Your task to perform on an android device: Add "macbook" to the cart on walmart Image 0: 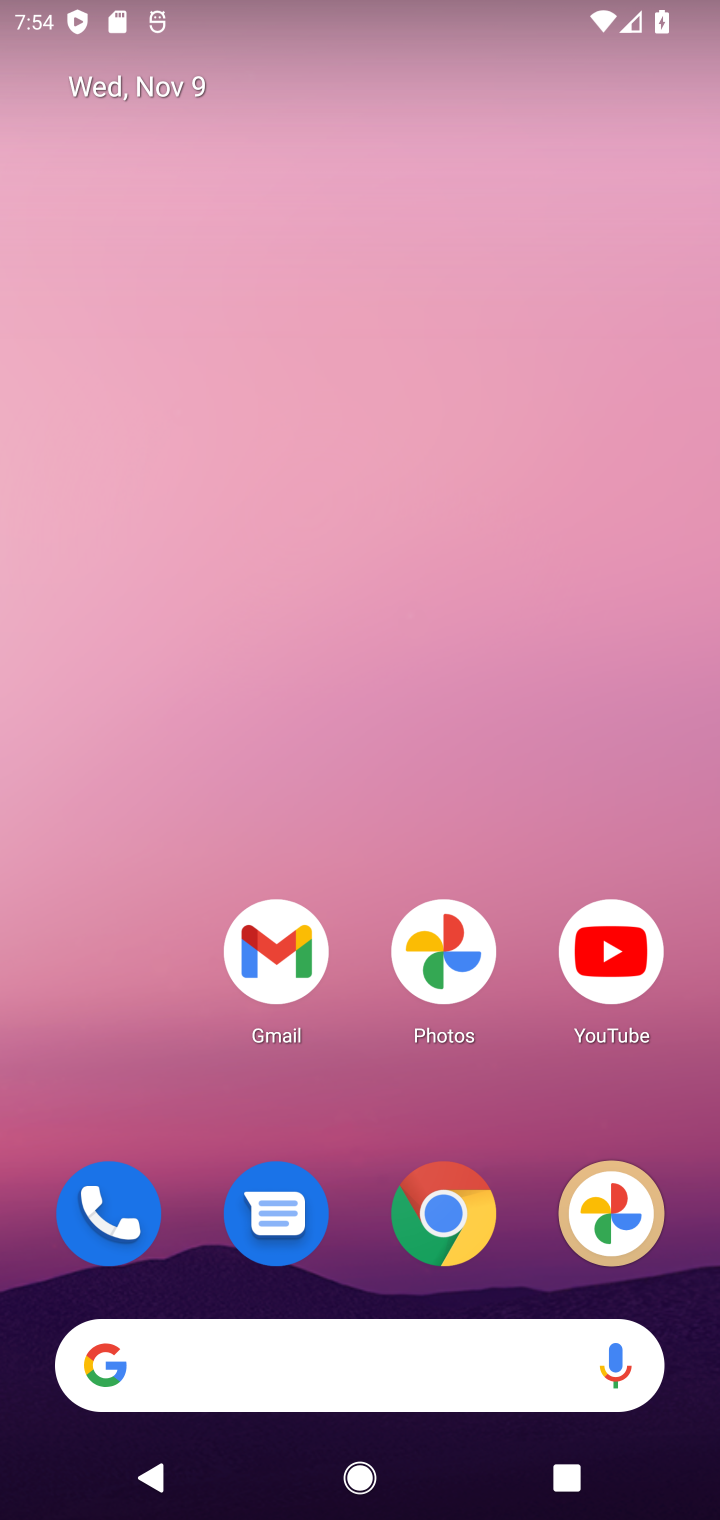
Step 0: click (434, 1219)
Your task to perform on an android device: Add "macbook" to the cart on walmart Image 1: 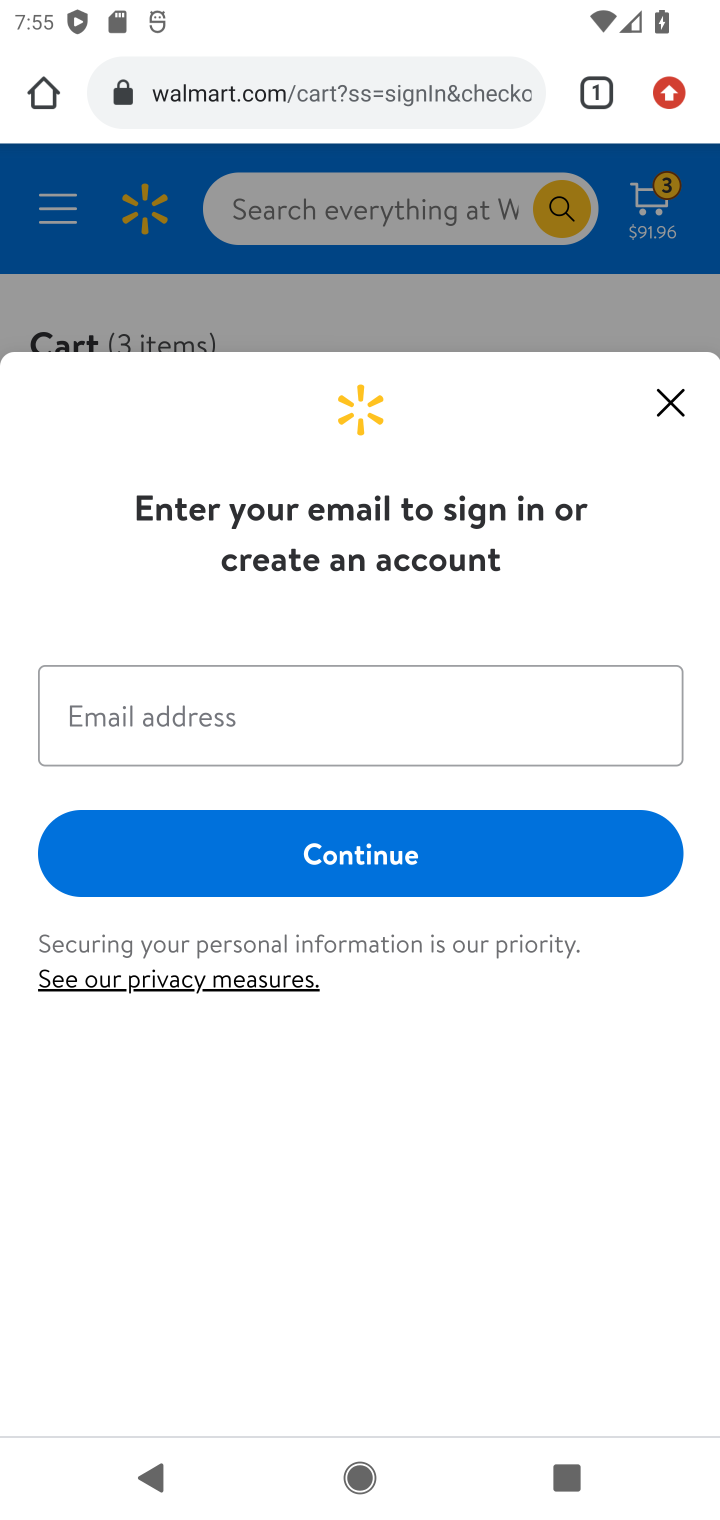
Step 1: click (230, 75)
Your task to perform on an android device: Add "macbook" to the cart on walmart Image 2: 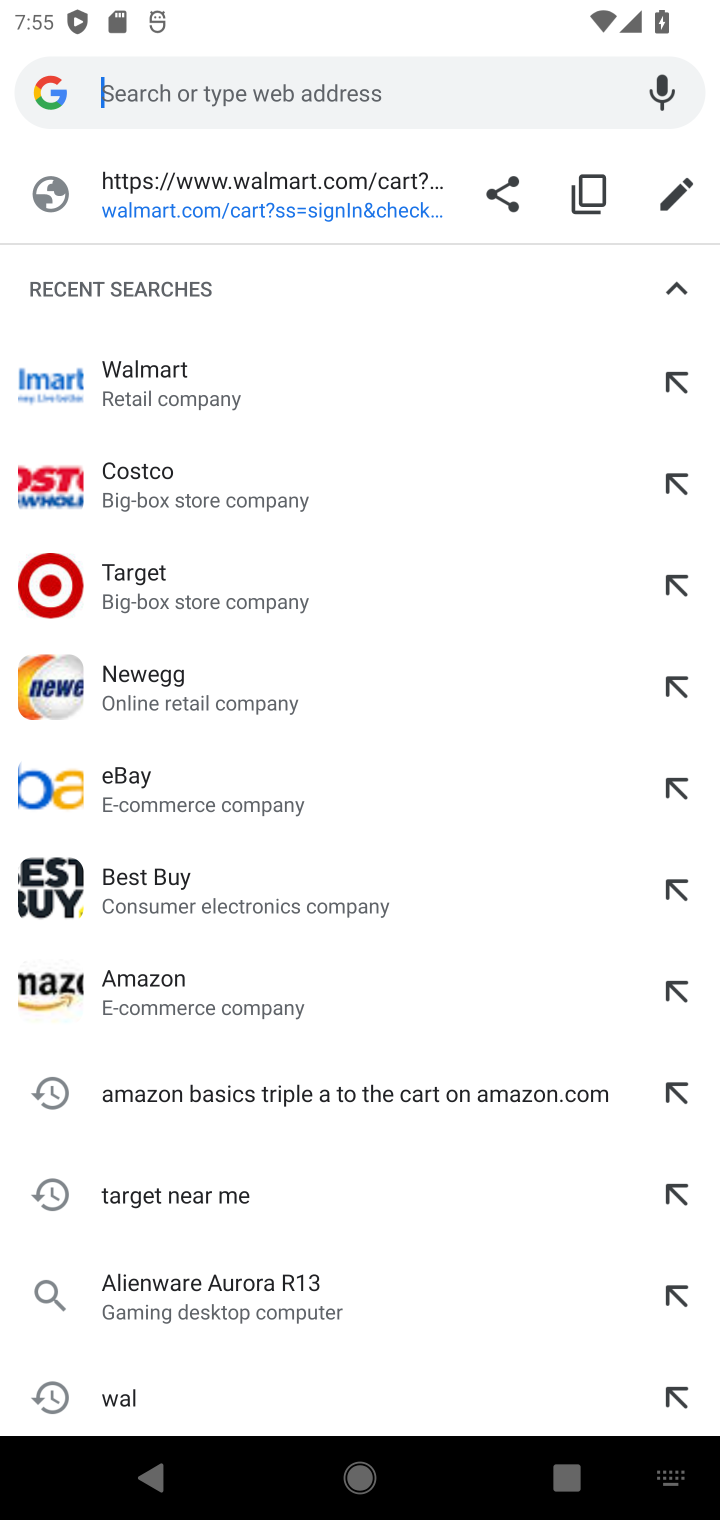
Step 2: type "walmart"
Your task to perform on an android device: Add "macbook" to the cart on walmart Image 3: 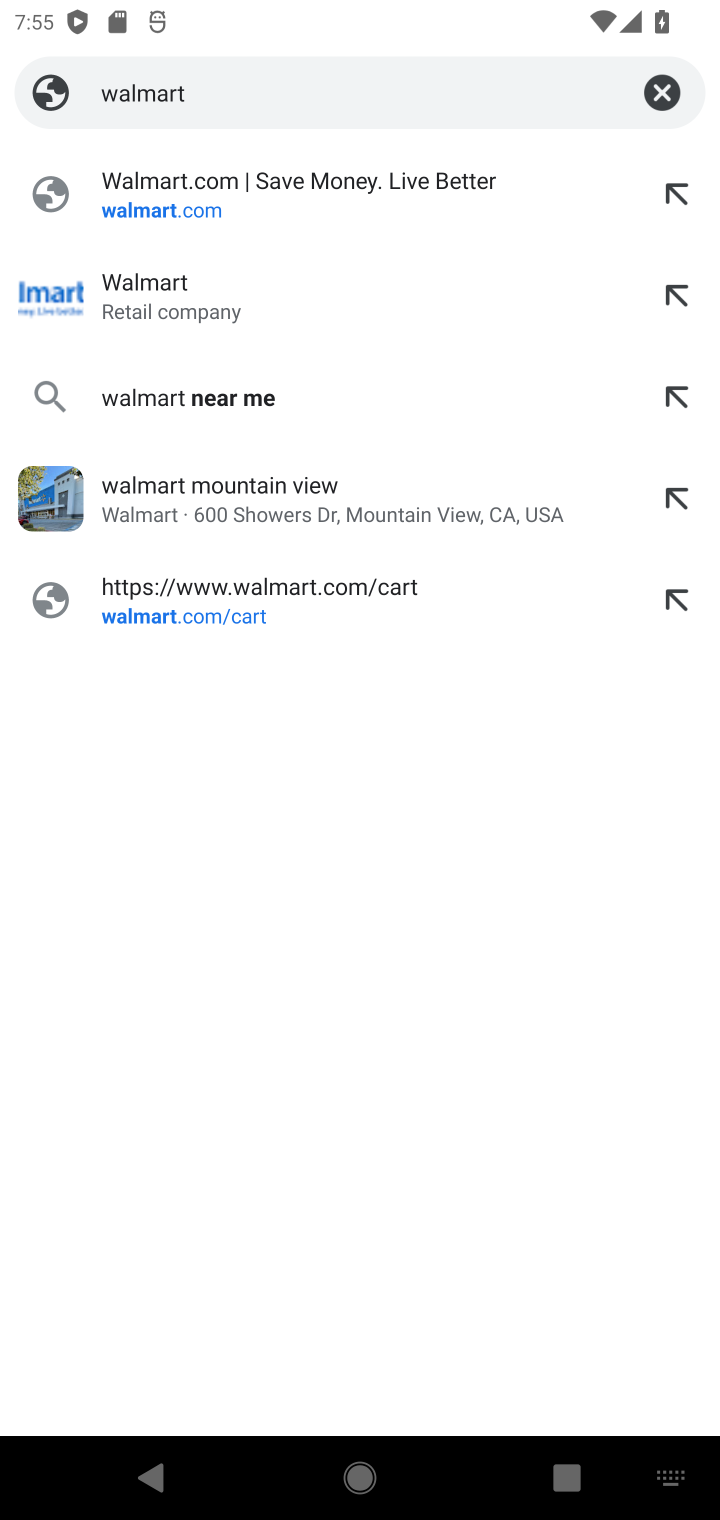
Step 3: click (168, 286)
Your task to perform on an android device: Add "macbook" to the cart on walmart Image 4: 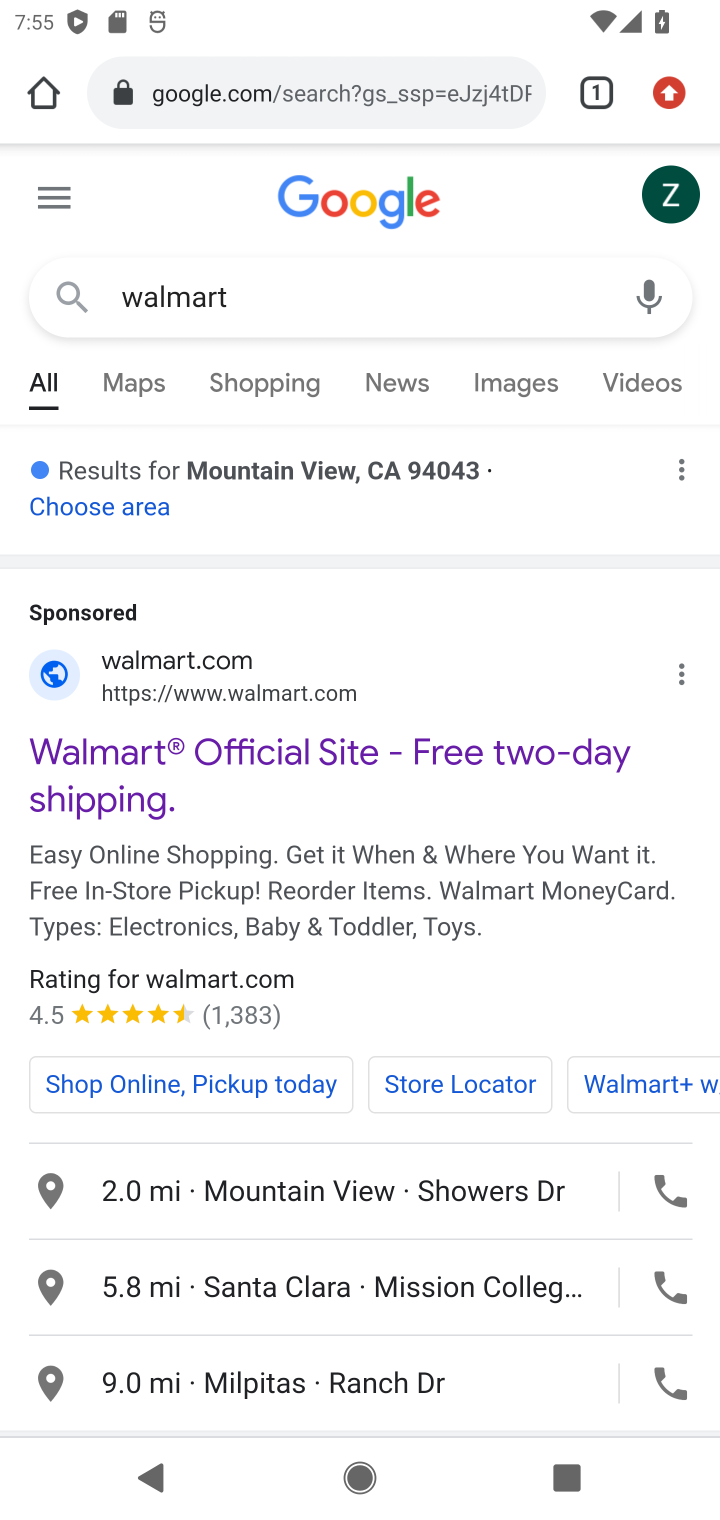
Step 4: drag from (286, 1134) to (305, 479)
Your task to perform on an android device: Add "macbook" to the cart on walmart Image 5: 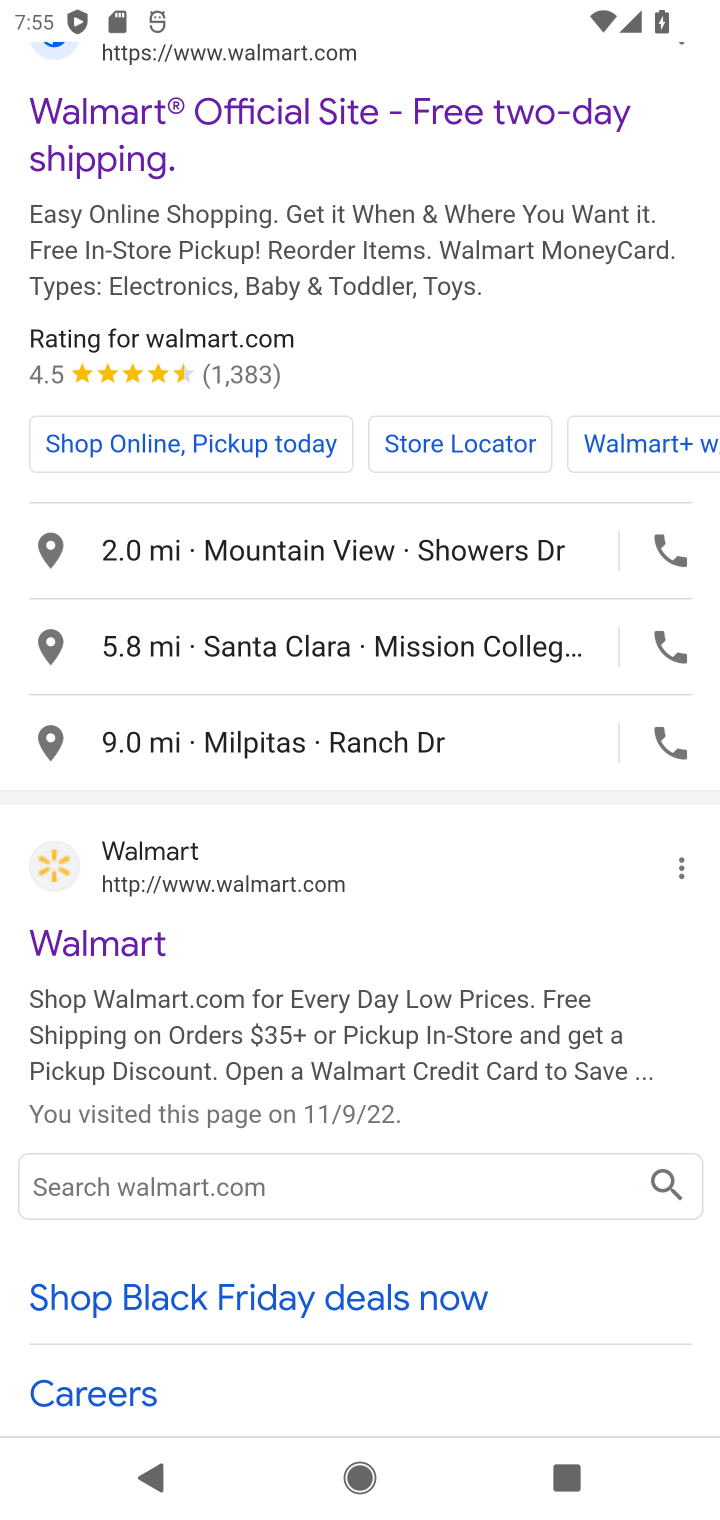
Step 5: click (104, 936)
Your task to perform on an android device: Add "macbook" to the cart on walmart Image 6: 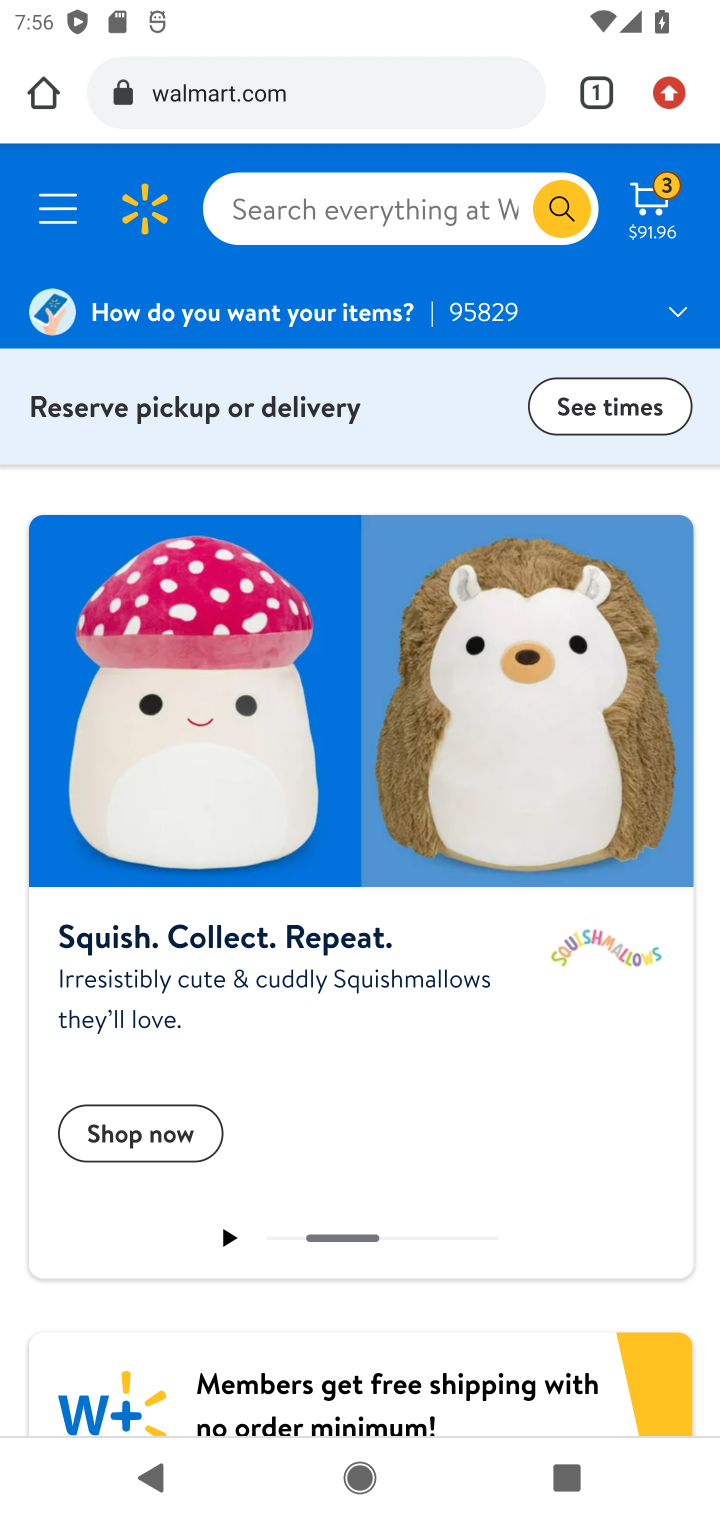
Step 6: click (632, 208)
Your task to perform on an android device: Add "macbook" to the cart on walmart Image 7: 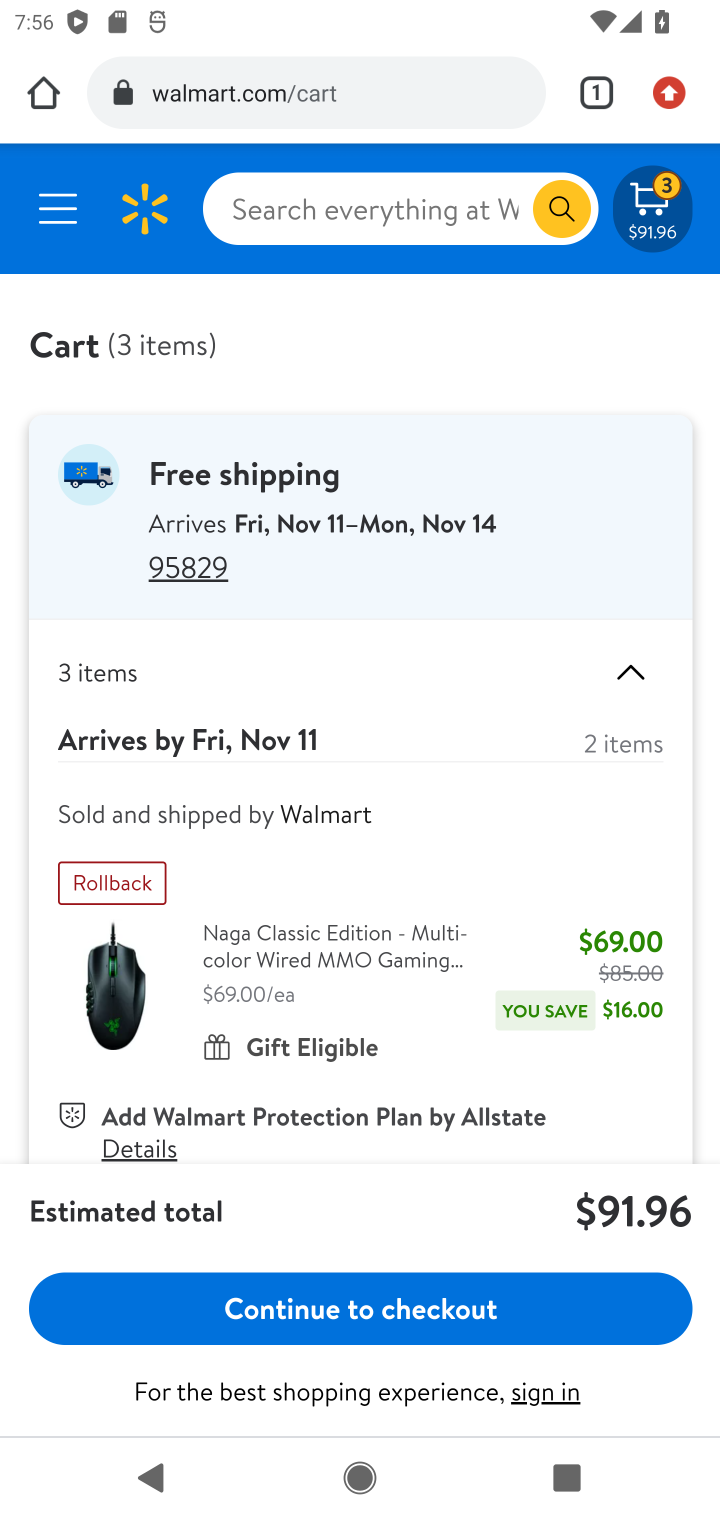
Step 7: drag from (334, 1068) to (313, 464)
Your task to perform on an android device: Add "macbook" to the cart on walmart Image 8: 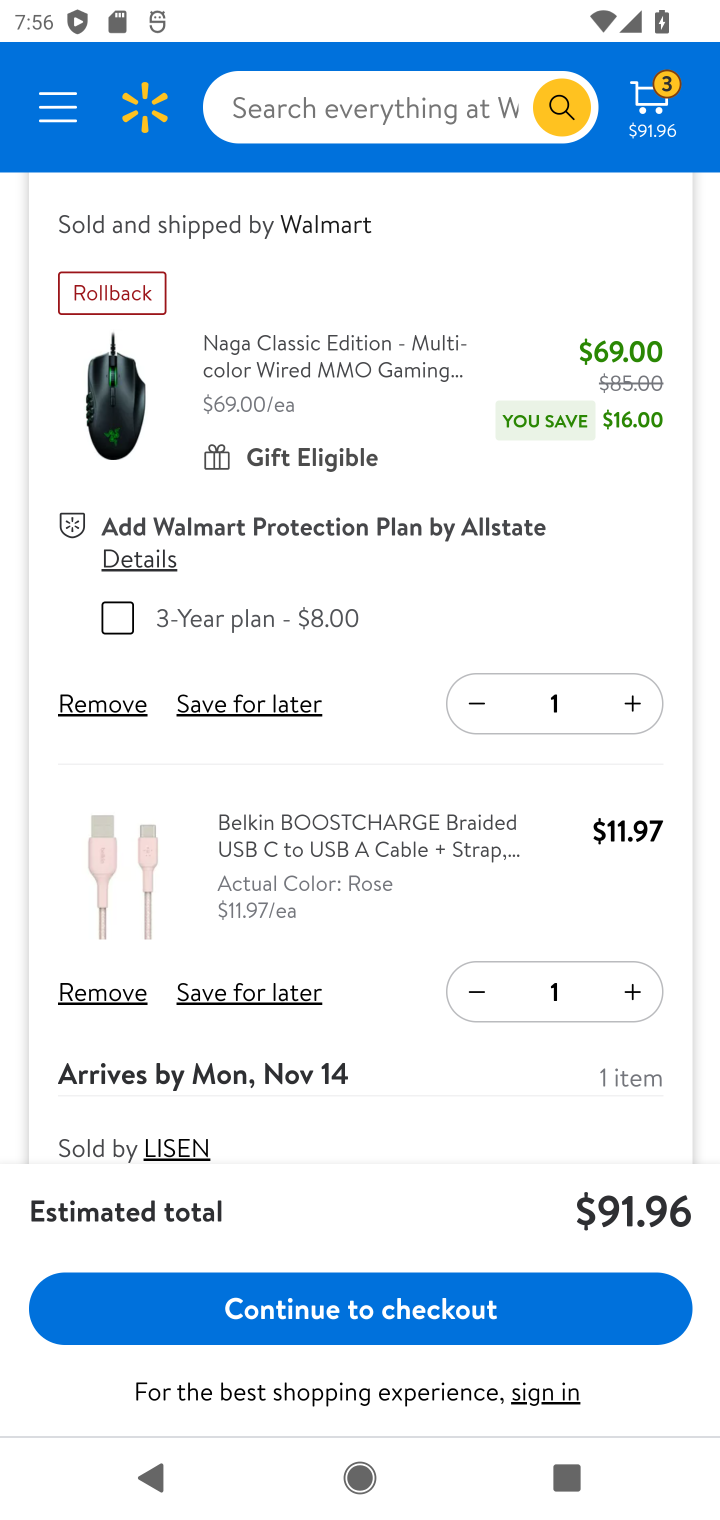
Step 8: drag from (308, 854) to (318, 515)
Your task to perform on an android device: Add "macbook" to the cart on walmart Image 9: 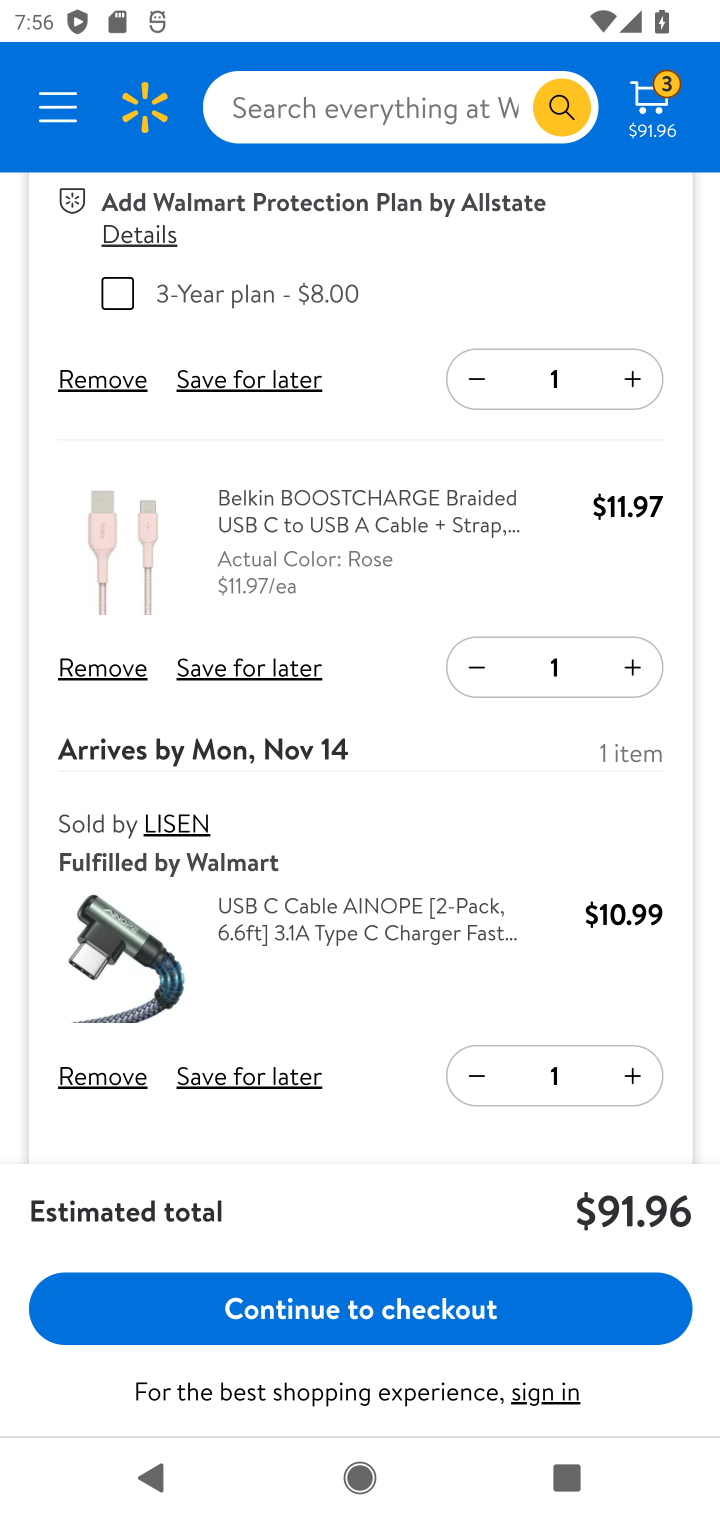
Step 9: click (373, 123)
Your task to perform on an android device: Add "macbook" to the cart on walmart Image 10: 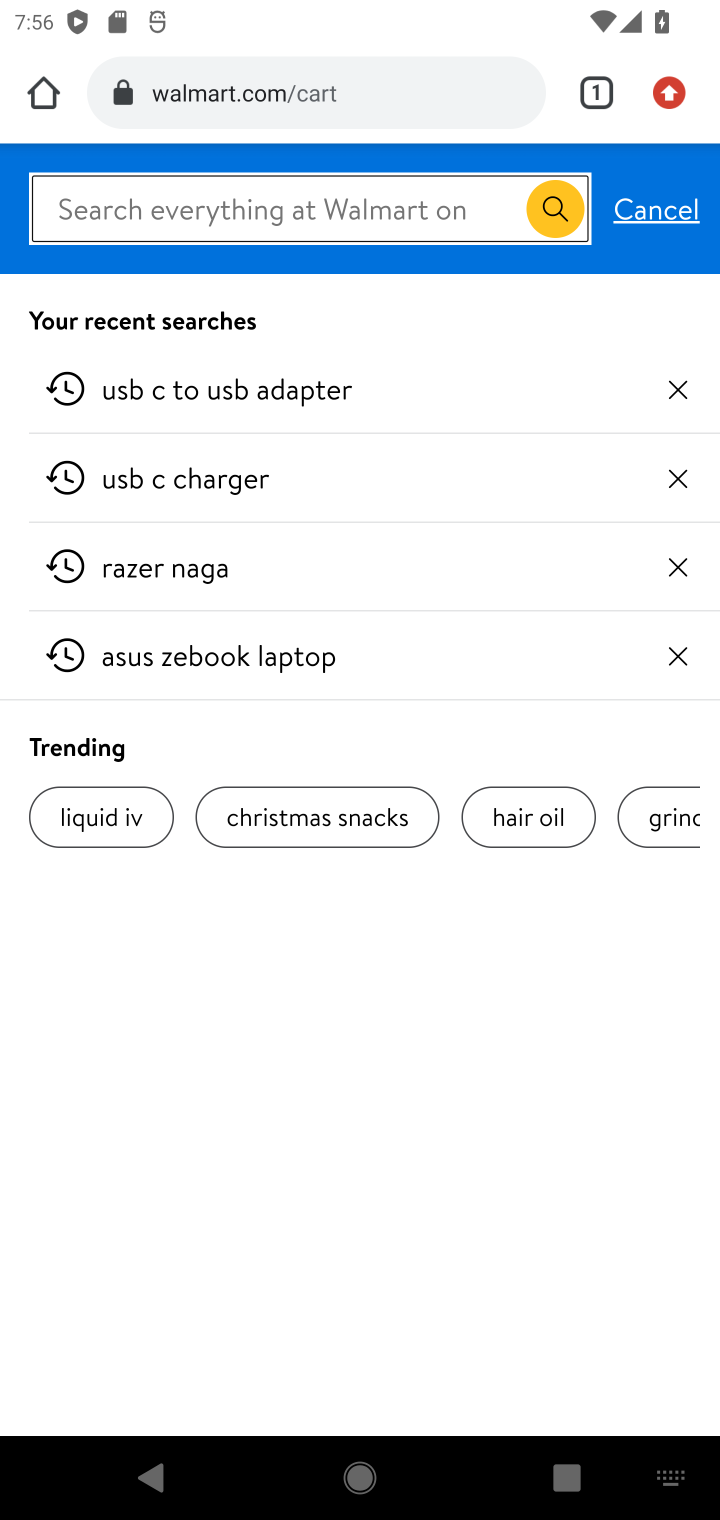
Step 10: type "macbook"
Your task to perform on an android device: Add "macbook" to the cart on walmart Image 11: 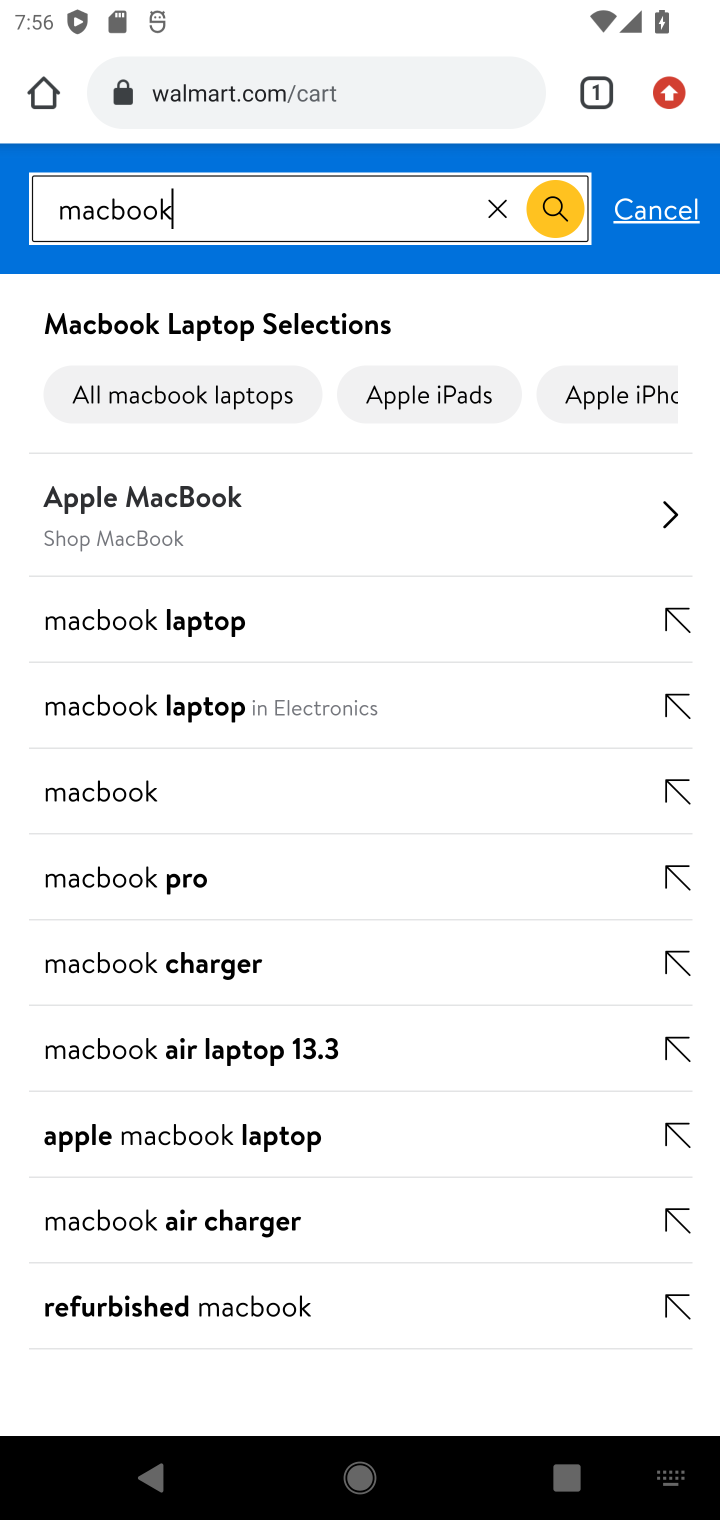
Step 11: click (96, 780)
Your task to perform on an android device: Add "macbook" to the cart on walmart Image 12: 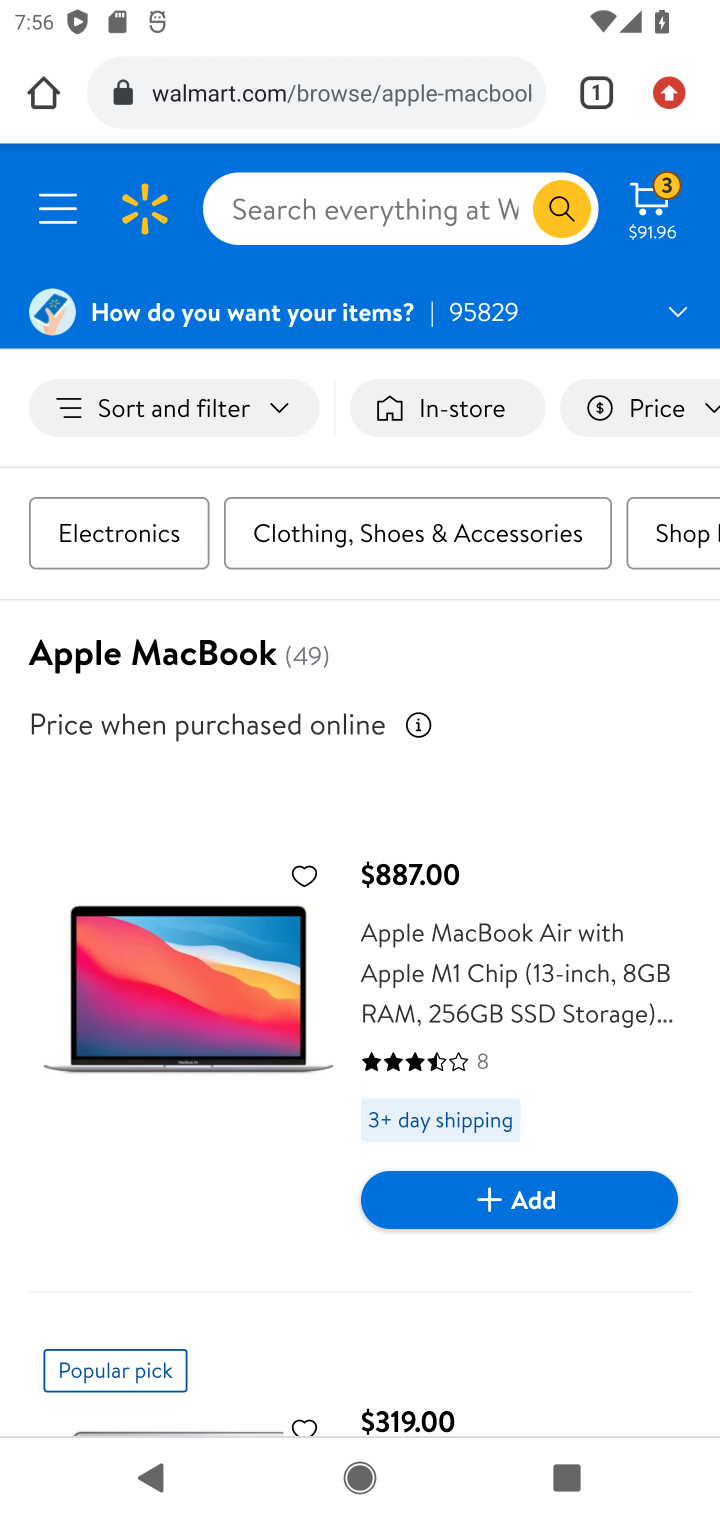
Step 12: click (541, 1213)
Your task to perform on an android device: Add "macbook" to the cart on walmart Image 13: 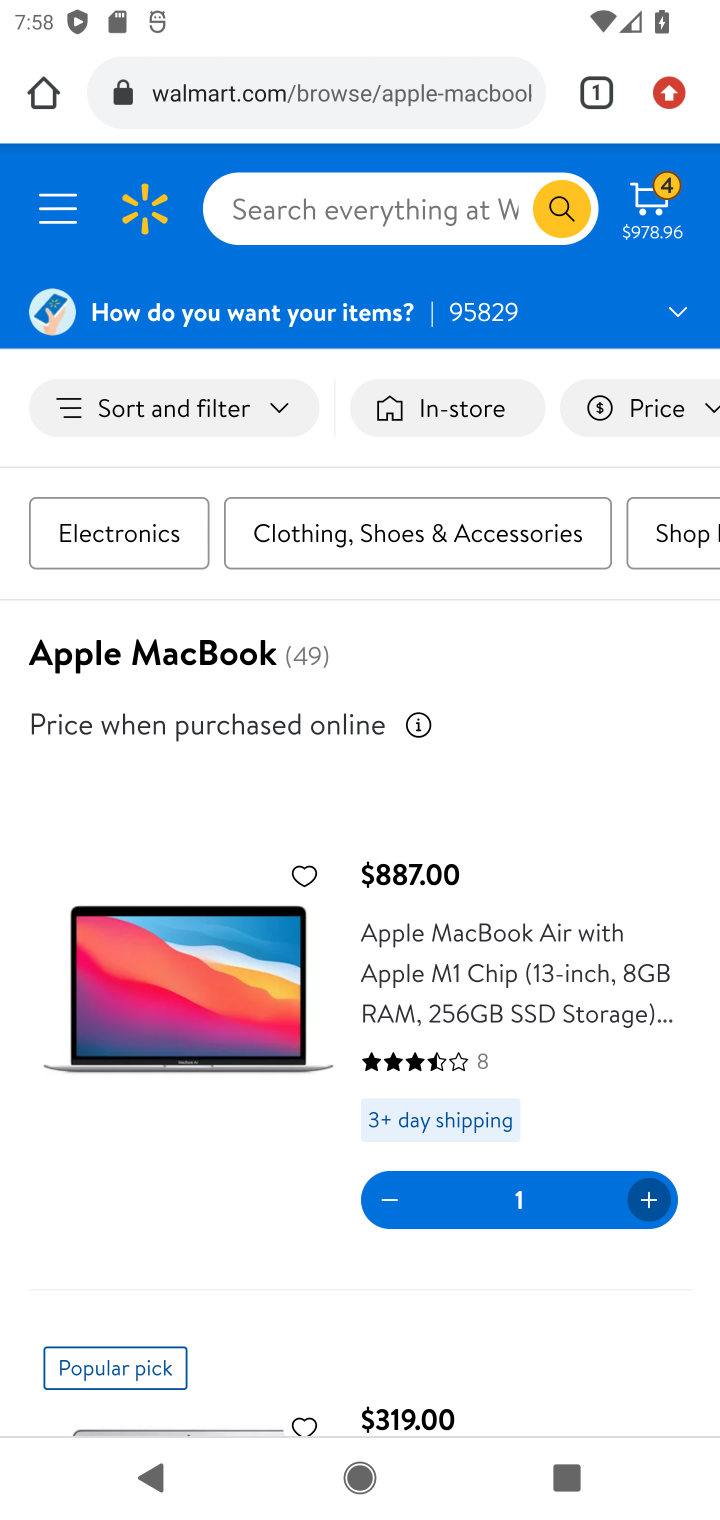
Step 13: task complete